Your task to perform on an android device: toggle sleep mode Image 0: 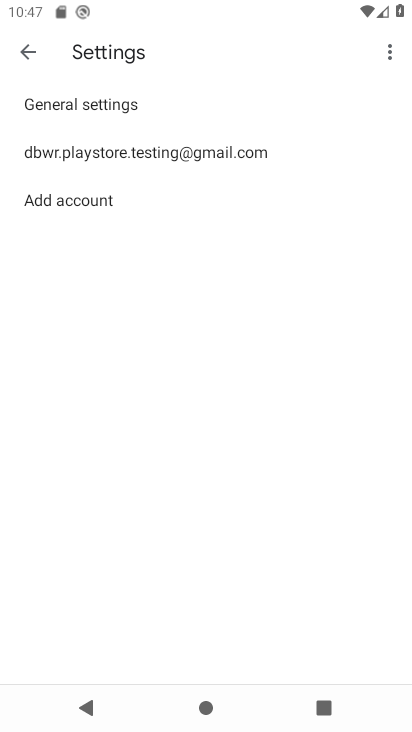
Step 0: press back button
Your task to perform on an android device: toggle sleep mode Image 1: 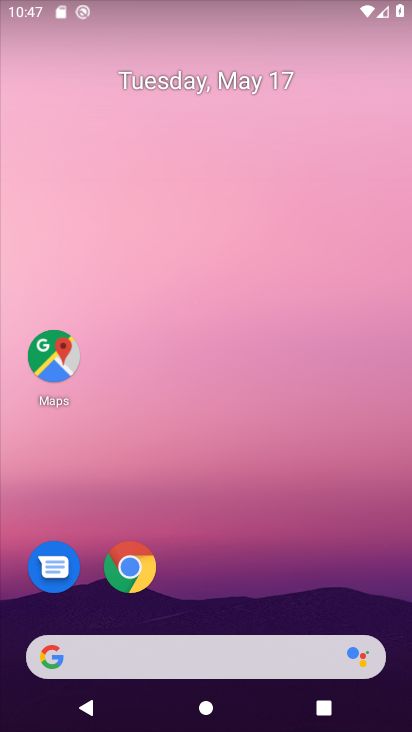
Step 1: drag from (228, 572) to (259, 28)
Your task to perform on an android device: toggle sleep mode Image 2: 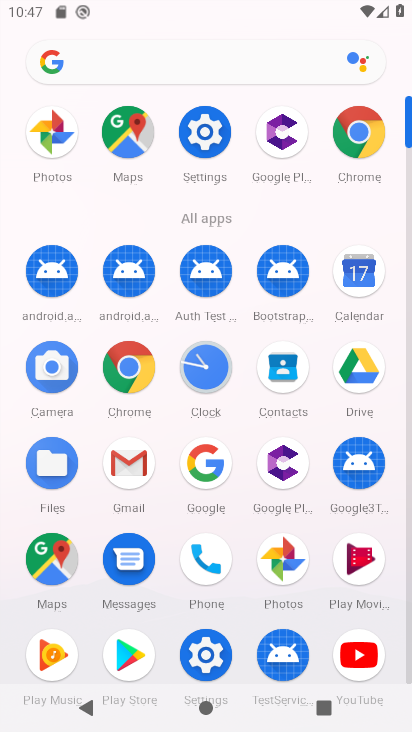
Step 2: click (207, 135)
Your task to perform on an android device: toggle sleep mode Image 3: 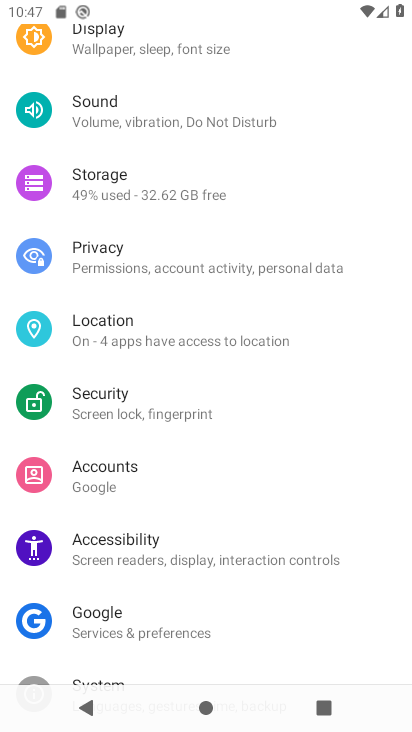
Step 3: drag from (193, 140) to (175, 617)
Your task to perform on an android device: toggle sleep mode Image 4: 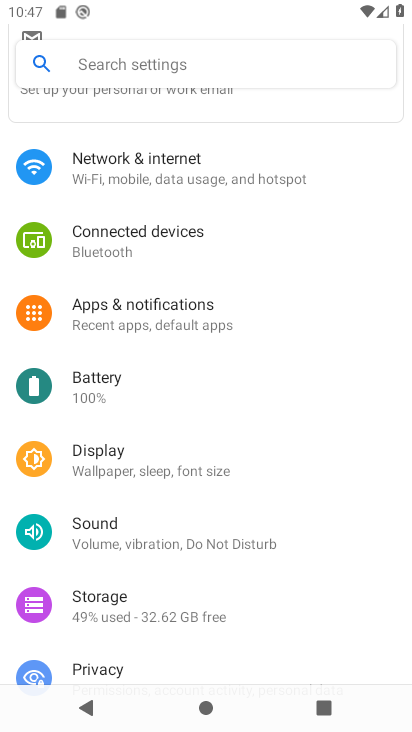
Step 4: click (141, 64)
Your task to perform on an android device: toggle sleep mode Image 5: 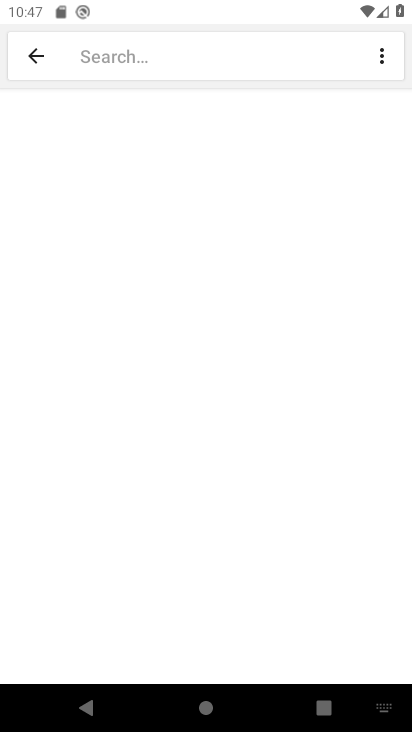
Step 5: type "sleep mode"
Your task to perform on an android device: toggle sleep mode Image 6: 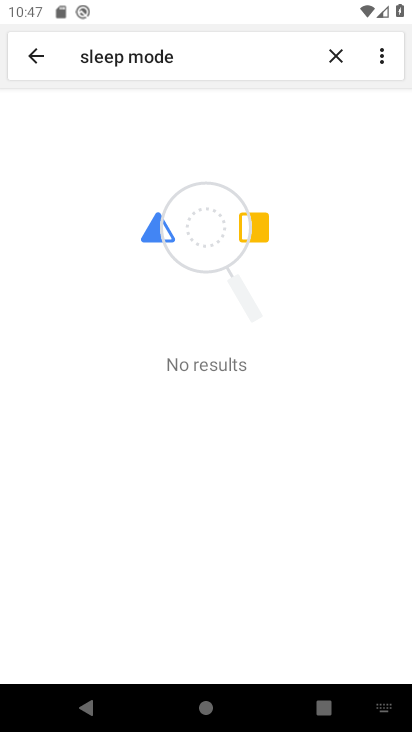
Step 6: task complete